Your task to perform on an android device: Find coffee shops on Maps Image 0: 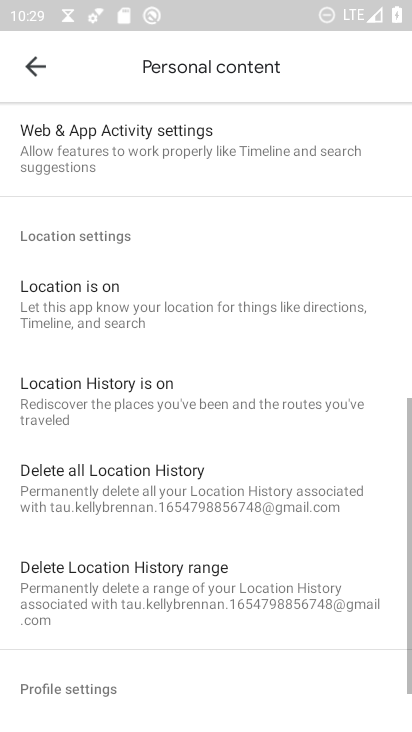
Step 0: press home button
Your task to perform on an android device: Find coffee shops on Maps Image 1: 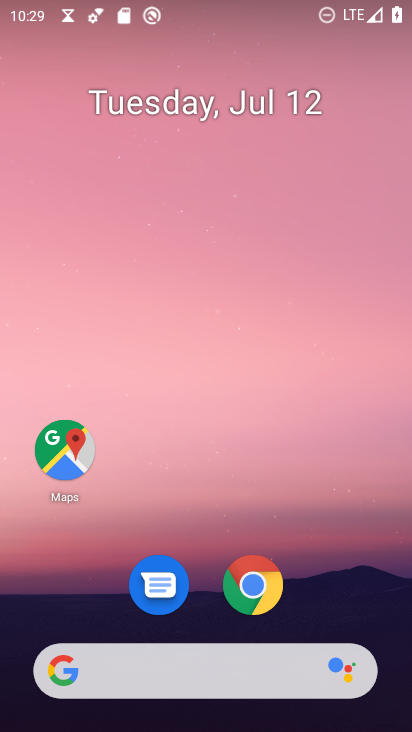
Step 1: click (59, 448)
Your task to perform on an android device: Find coffee shops on Maps Image 2: 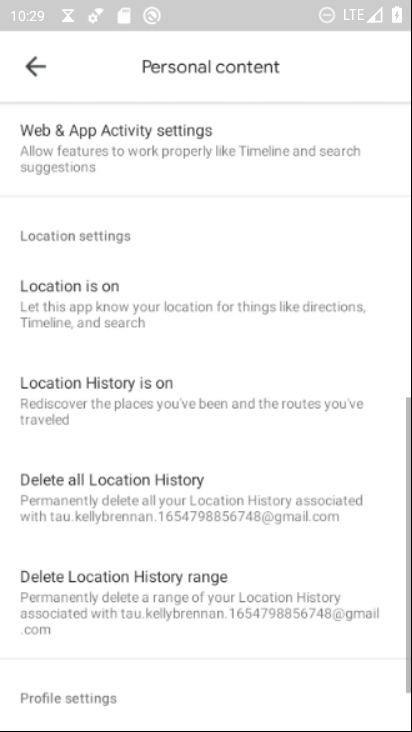
Step 2: click (35, 72)
Your task to perform on an android device: Find coffee shops on Maps Image 3: 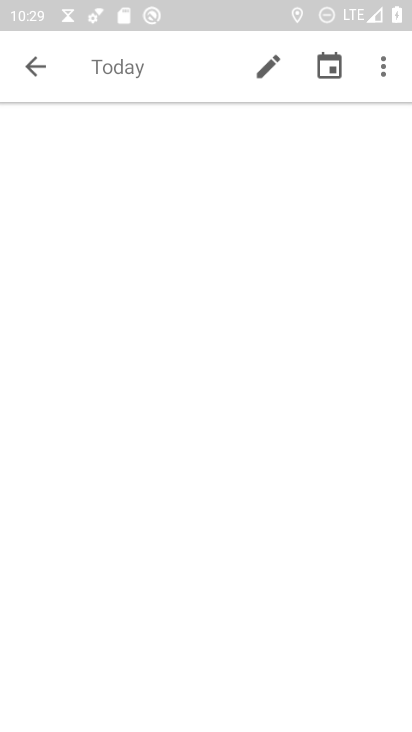
Step 3: click (40, 63)
Your task to perform on an android device: Find coffee shops on Maps Image 4: 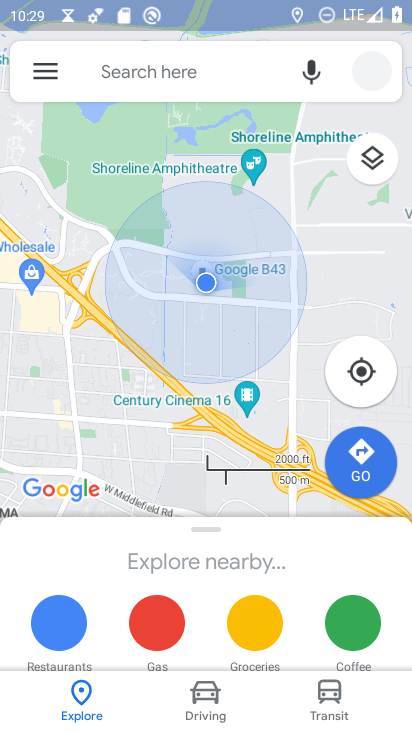
Step 4: click (119, 67)
Your task to perform on an android device: Find coffee shops on Maps Image 5: 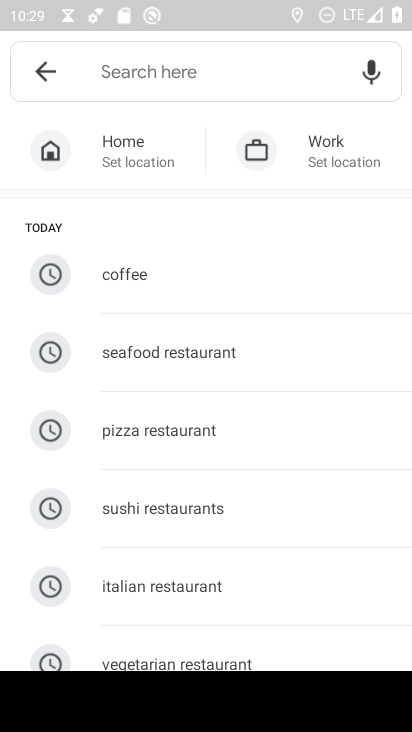
Step 5: click (142, 283)
Your task to perform on an android device: Find coffee shops on Maps Image 6: 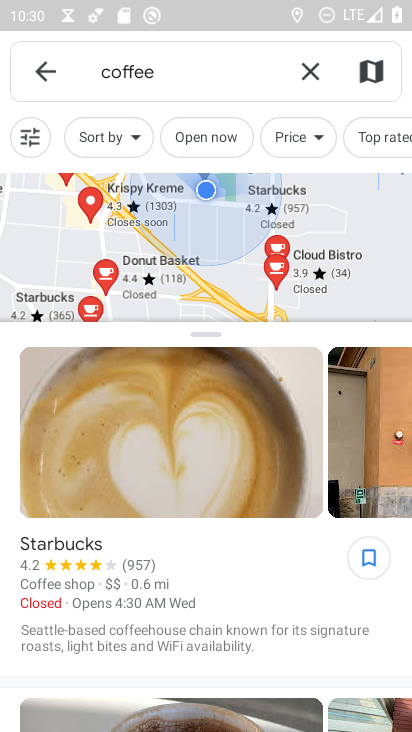
Step 6: task complete